Your task to perform on an android device: Go to Maps Image 0: 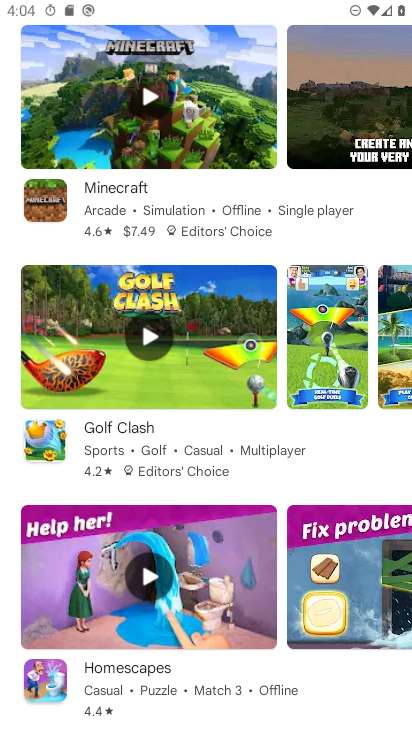
Step 0: press home button
Your task to perform on an android device: Go to Maps Image 1: 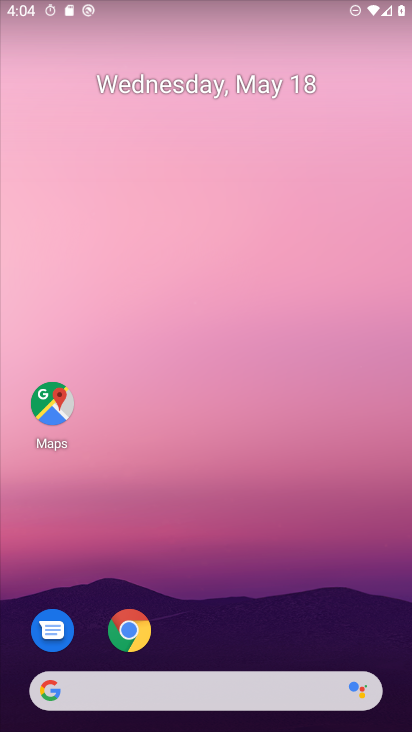
Step 1: click (47, 399)
Your task to perform on an android device: Go to Maps Image 2: 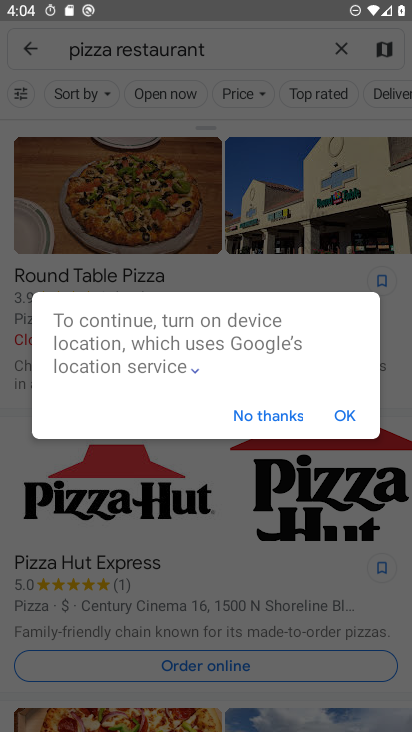
Step 2: click (283, 414)
Your task to perform on an android device: Go to Maps Image 3: 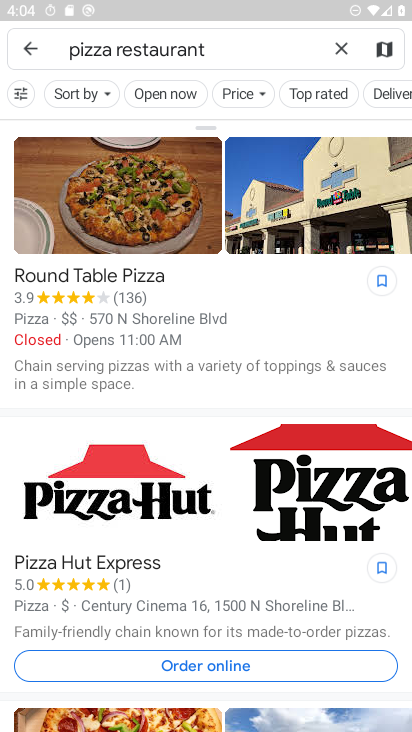
Step 3: click (31, 47)
Your task to perform on an android device: Go to Maps Image 4: 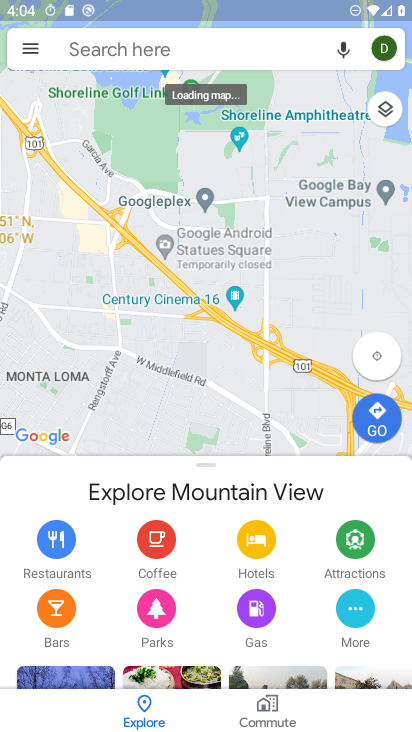
Step 4: task complete